Your task to perform on an android device: clear all cookies in the chrome app Image 0: 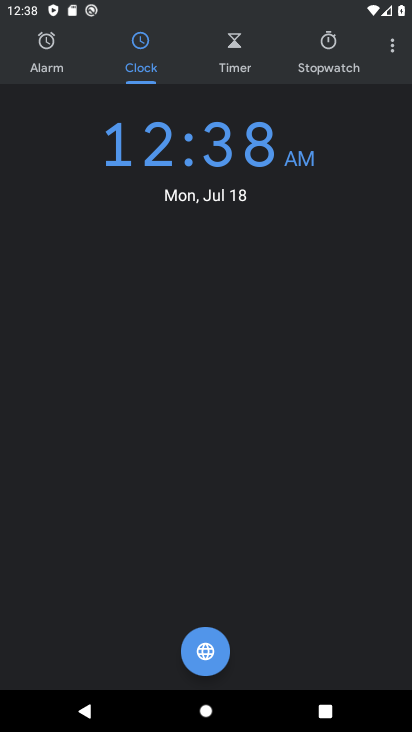
Step 0: press home button
Your task to perform on an android device: clear all cookies in the chrome app Image 1: 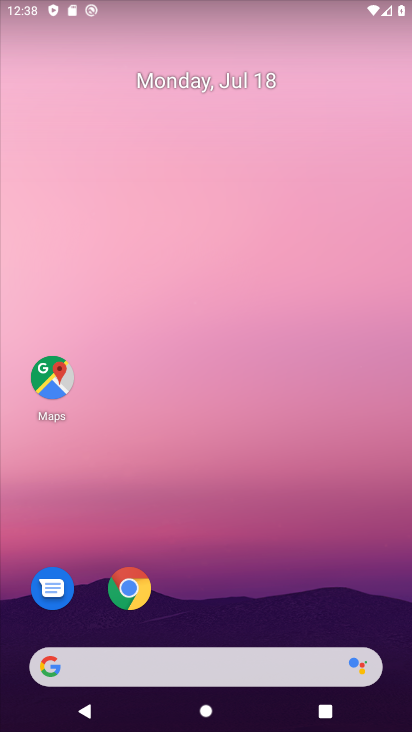
Step 1: click (141, 582)
Your task to perform on an android device: clear all cookies in the chrome app Image 2: 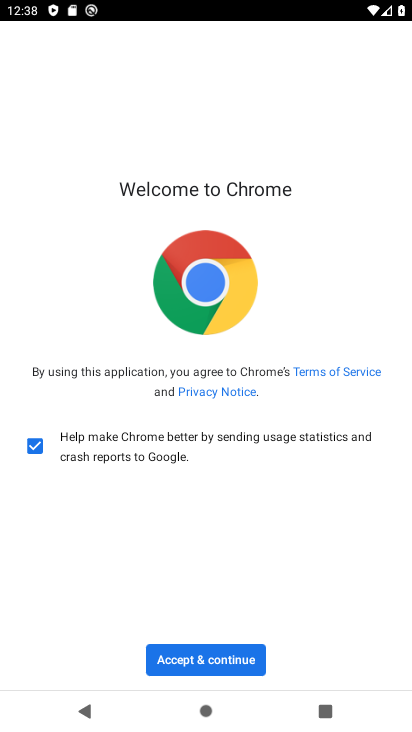
Step 2: click (223, 657)
Your task to perform on an android device: clear all cookies in the chrome app Image 3: 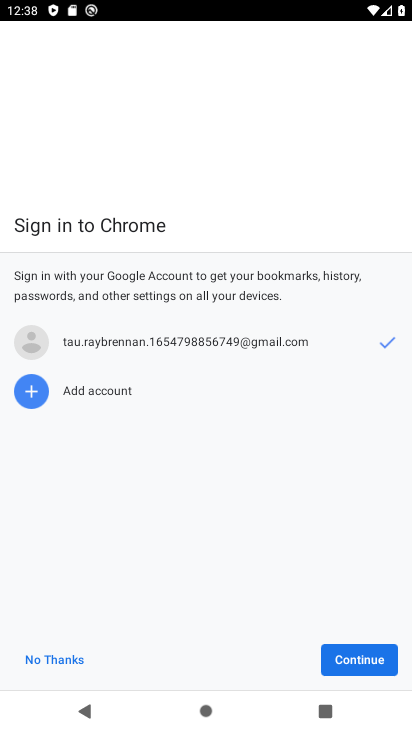
Step 3: click (346, 662)
Your task to perform on an android device: clear all cookies in the chrome app Image 4: 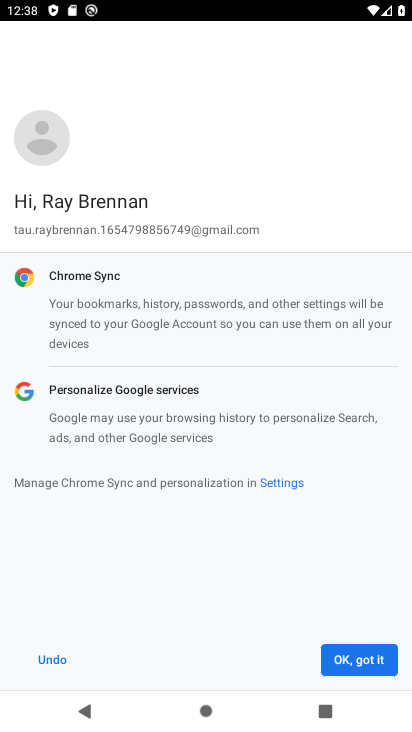
Step 4: click (358, 658)
Your task to perform on an android device: clear all cookies in the chrome app Image 5: 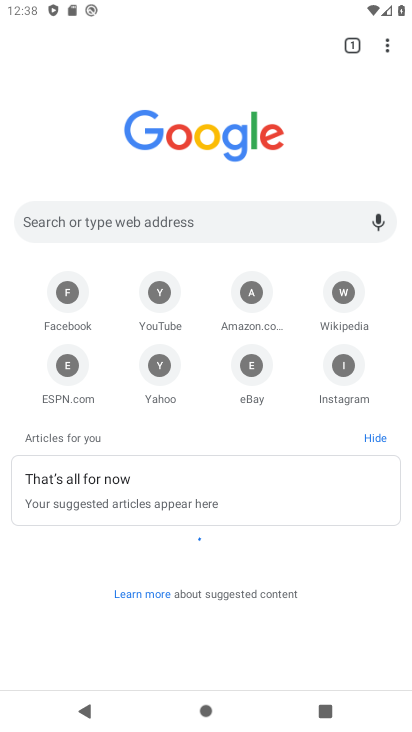
Step 5: click (380, 48)
Your task to perform on an android device: clear all cookies in the chrome app Image 6: 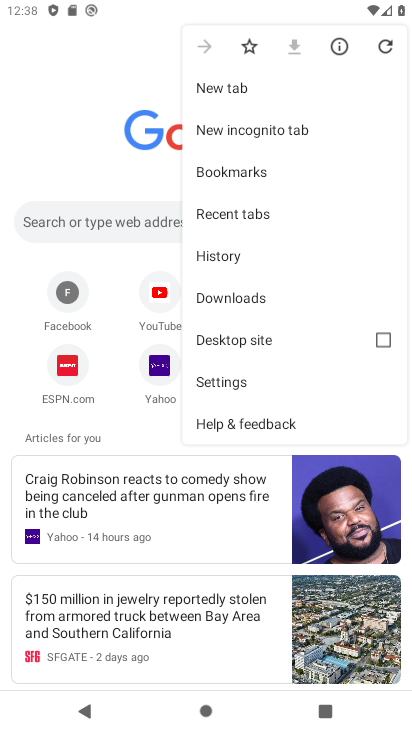
Step 6: click (218, 266)
Your task to perform on an android device: clear all cookies in the chrome app Image 7: 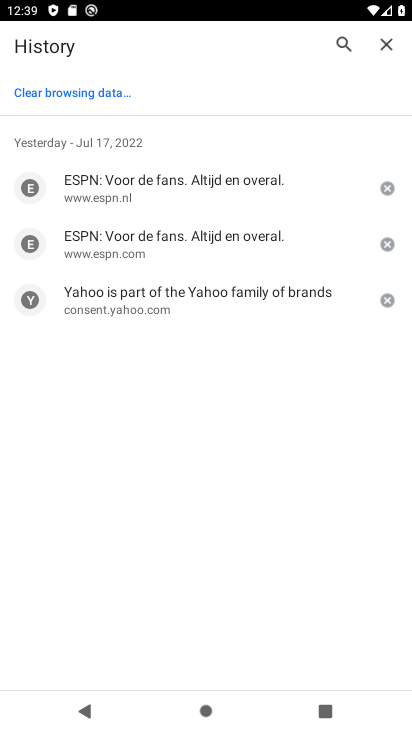
Step 7: click (36, 90)
Your task to perform on an android device: clear all cookies in the chrome app Image 8: 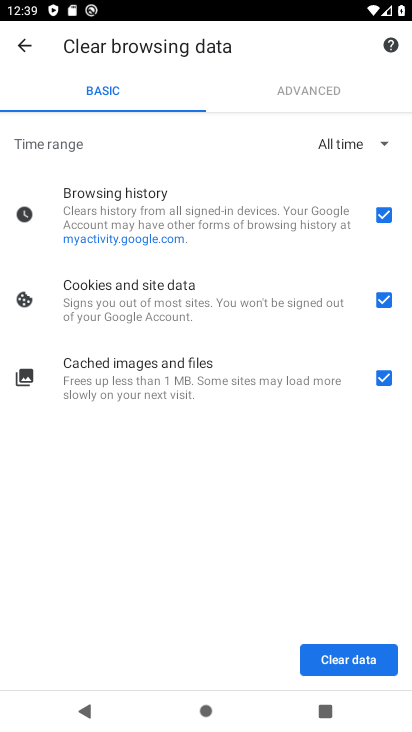
Step 8: click (347, 670)
Your task to perform on an android device: clear all cookies in the chrome app Image 9: 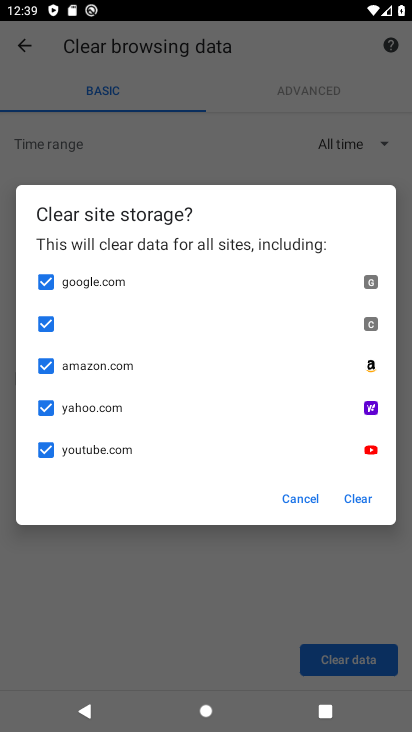
Step 9: click (358, 498)
Your task to perform on an android device: clear all cookies in the chrome app Image 10: 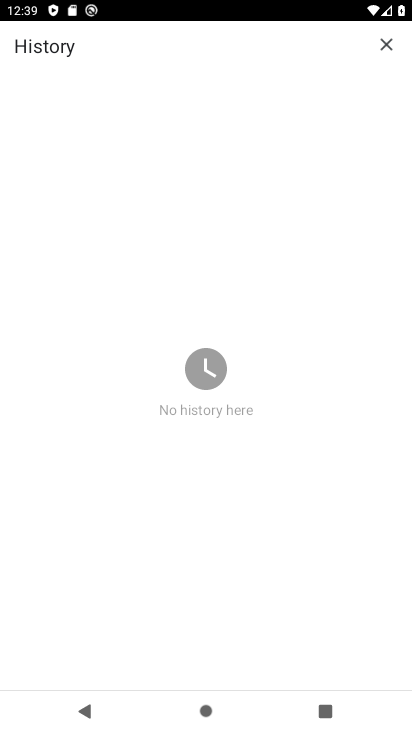
Step 10: task complete